Your task to perform on an android device: Show me productivity apps on the Play Store Image 0: 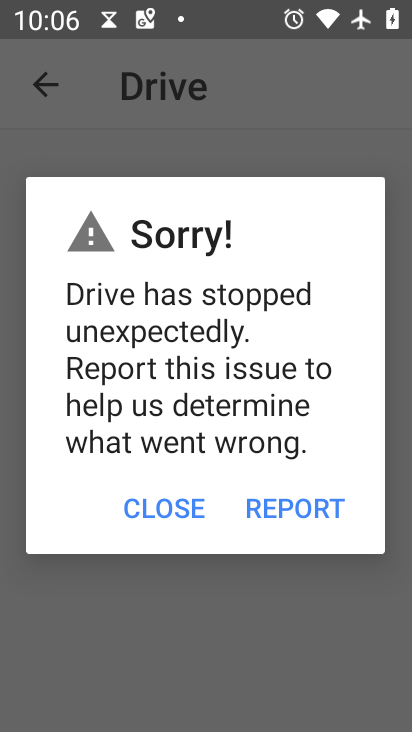
Step 0: press home button
Your task to perform on an android device: Show me productivity apps on the Play Store Image 1: 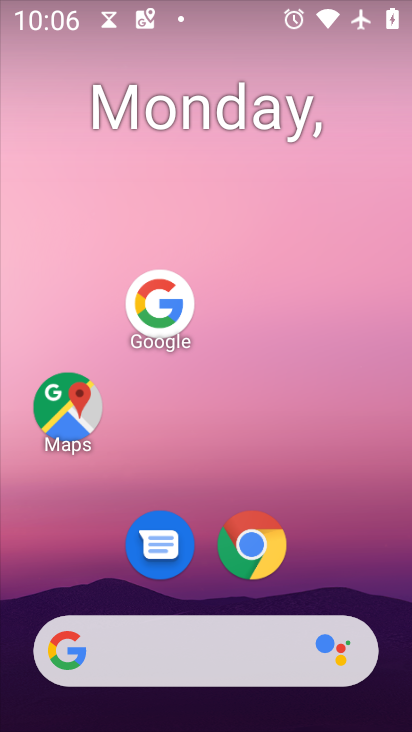
Step 1: drag from (190, 654) to (274, 193)
Your task to perform on an android device: Show me productivity apps on the Play Store Image 2: 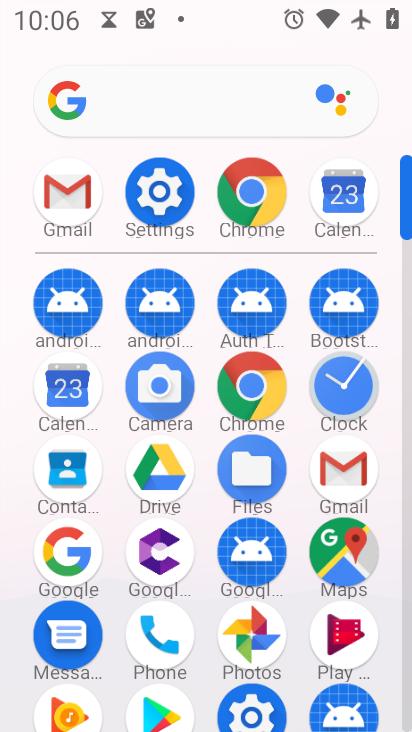
Step 2: drag from (118, 663) to (211, 261)
Your task to perform on an android device: Show me productivity apps on the Play Store Image 3: 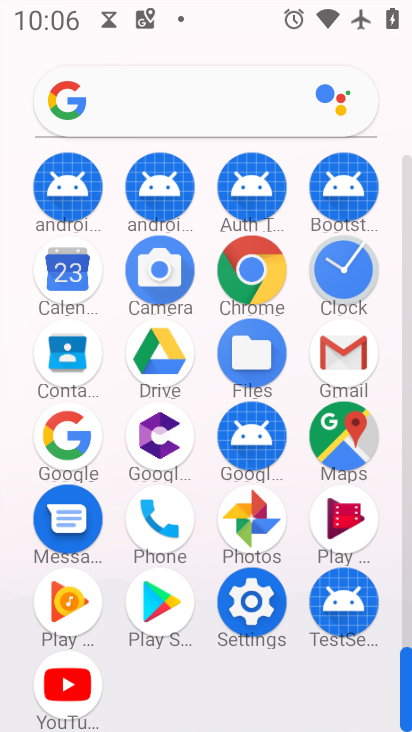
Step 3: click (163, 602)
Your task to perform on an android device: Show me productivity apps on the Play Store Image 4: 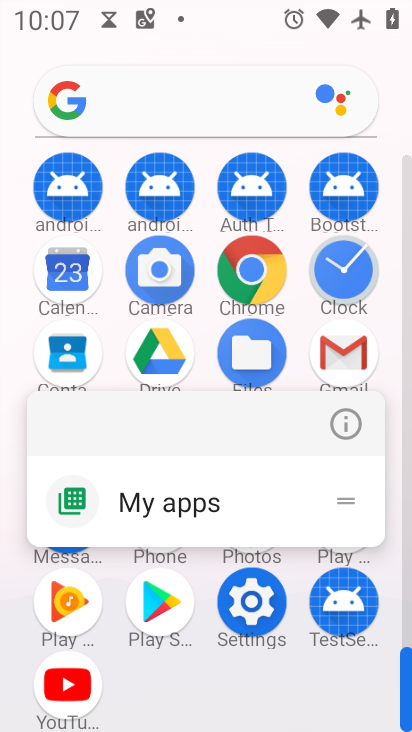
Step 4: click (160, 602)
Your task to perform on an android device: Show me productivity apps on the Play Store Image 5: 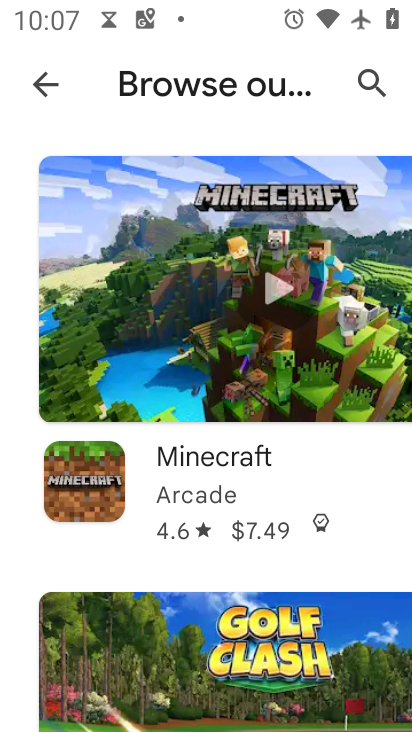
Step 5: click (49, 78)
Your task to perform on an android device: Show me productivity apps on the Play Store Image 6: 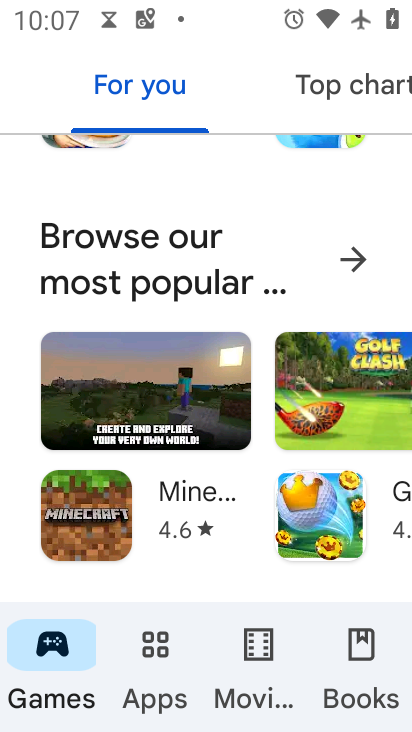
Step 6: click (147, 711)
Your task to perform on an android device: Show me productivity apps on the Play Store Image 7: 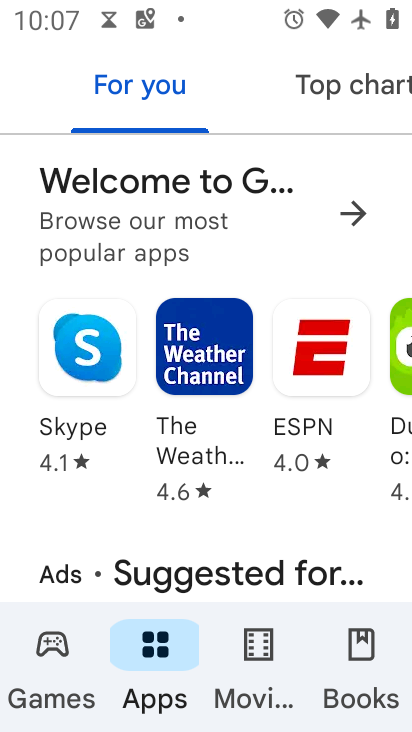
Step 7: drag from (345, 88) to (118, 89)
Your task to perform on an android device: Show me productivity apps on the Play Store Image 8: 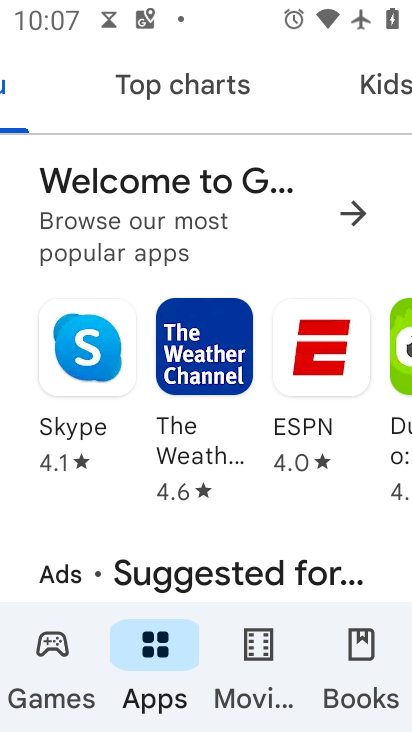
Step 8: drag from (378, 94) to (167, 106)
Your task to perform on an android device: Show me productivity apps on the Play Store Image 9: 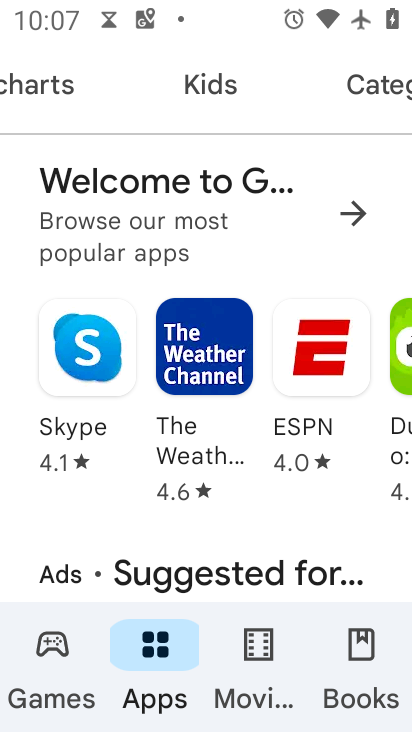
Step 9: click (362, 90)
Your task to perform on an android device: Show me productivity apps on the Play Store Image 10: 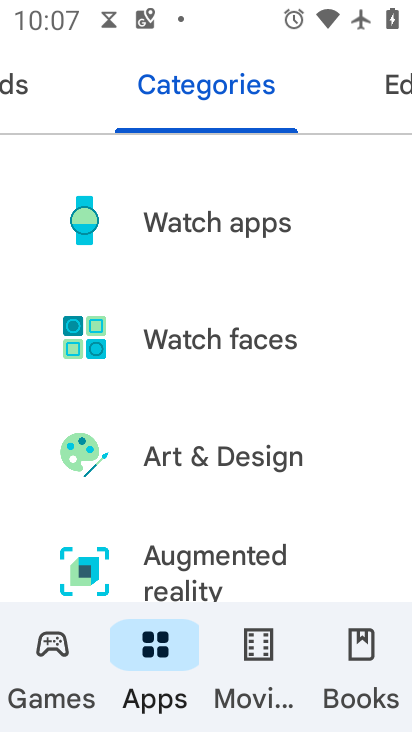
Step 10: drag from (271, 567) to (290, 121)
Your task to perform on an android device: Show me productivity apps on the Play Store Image 11: 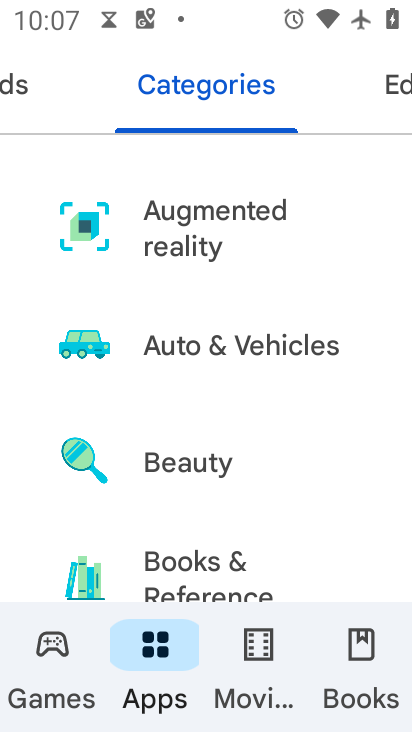
Step 11: drag from (253, 578) to (297, 124)
Your task to perform on an android device: Show me productivity apps on the Play Store Image 12: 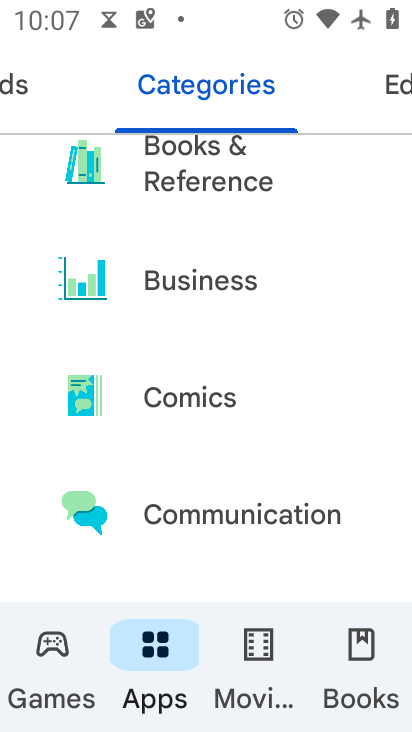
Step 12: drag from (235, 564) to (270, 135)
Your task to perform on an android device: Show me productivity apps on the Play Store Image 13: 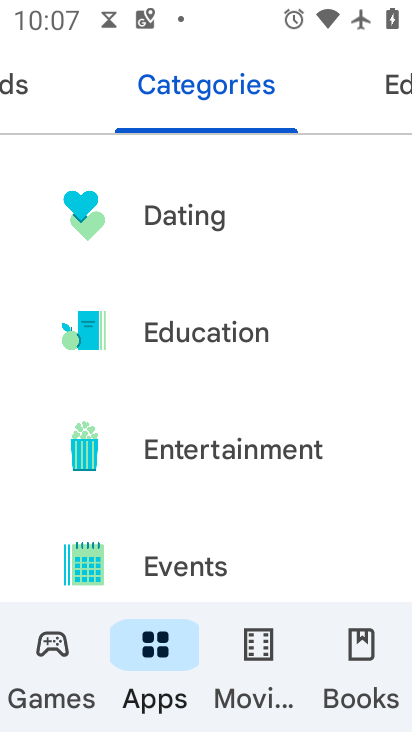
Step 13: drag from (241, 572) to (275, 96)
Your task to perform on an android device: Show me productivity apps on the Play Store Image 14: 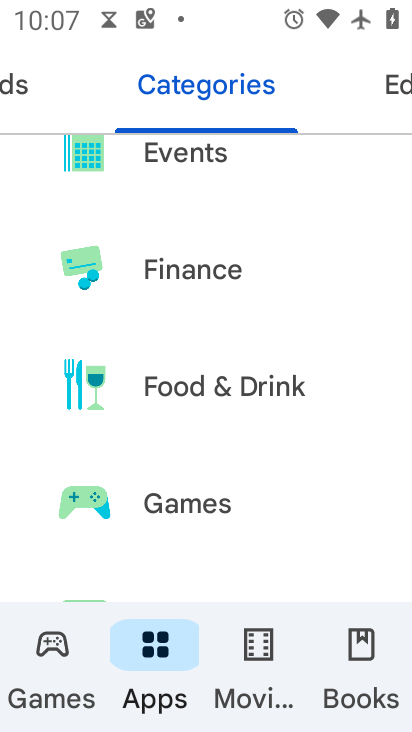
Step 14: drag from (242, 556) to (311, 97)
Your task to perform on an android device: Show me productivity apps on the Play Store Image 15: 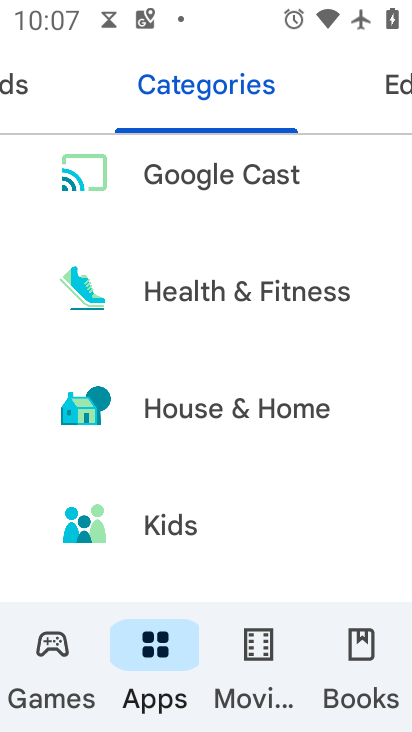
Step 15: drag from (245, 557) to (337, 190)
Your task to perform on an android device: Show me productivity apps on the Play Store Image 16: 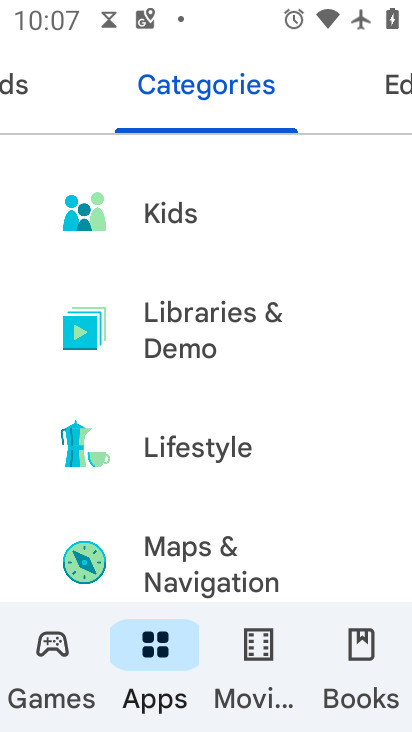
Step 16: drag from (285, 572) to (297, 90)
Your task to perform on an android device: Show me productivity apps on the Play Store Image 17: 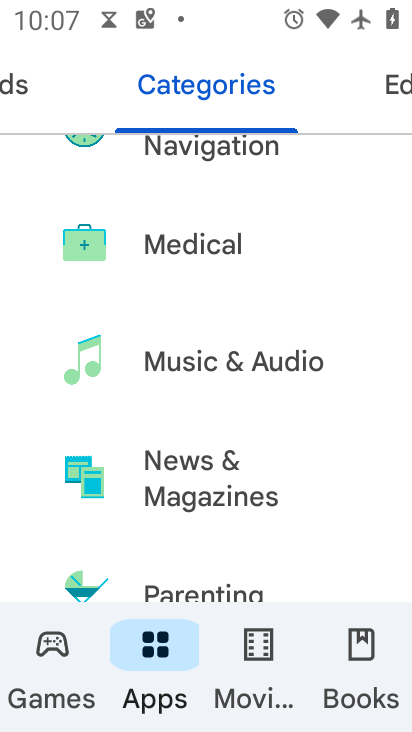
Step 17: drag from (255, 573) to (289, 52)
Your task to perform on an android device: Show me productivity apps on the Play Store Image 18: 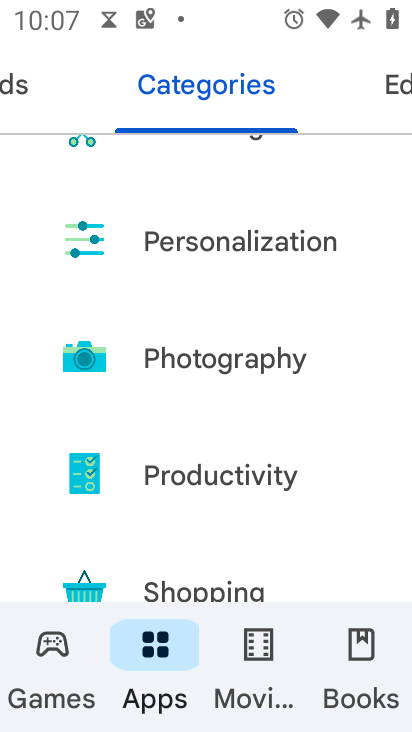
Step 18: click (244, 464)
Your task to perform on an android device: Show me productivity apps on the Play Store Image 19: 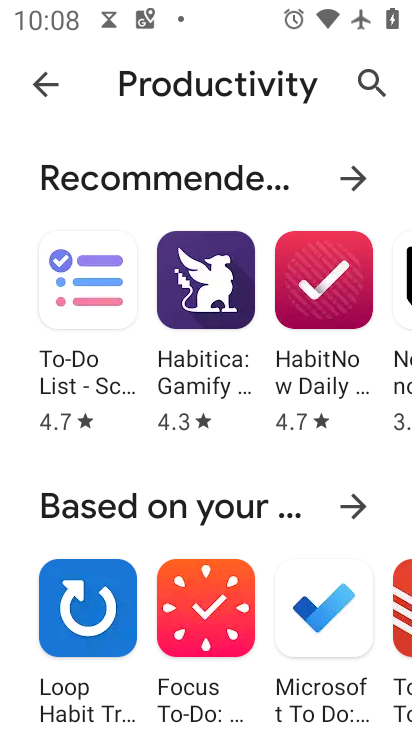
Step 19: task complete